Your task to perform on an android device: toggle data saver in the chrome app Image 0: 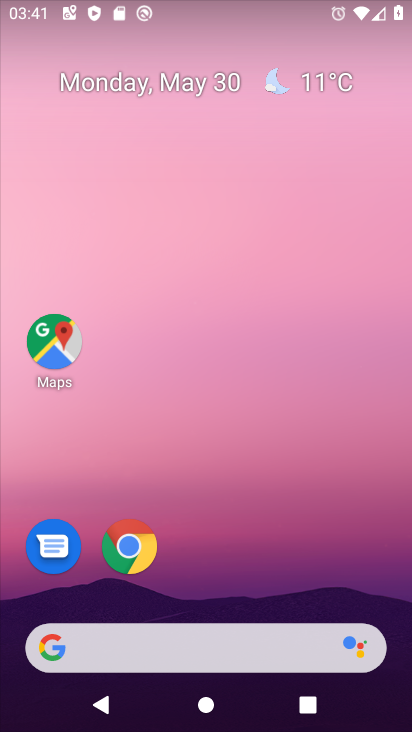
Step 0: press home button
Your task to perform on an android device: toggle data saver in the chrome app Image 1: 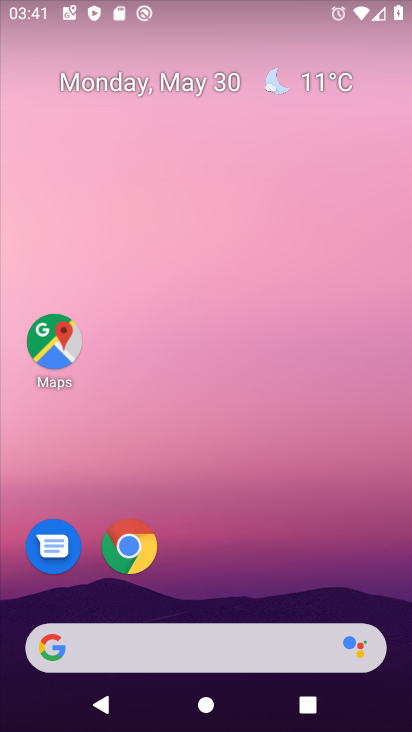
Step 1: click (127, 538)
Your task to perform on an android device: toggle data saver in the chrome app Image 2: 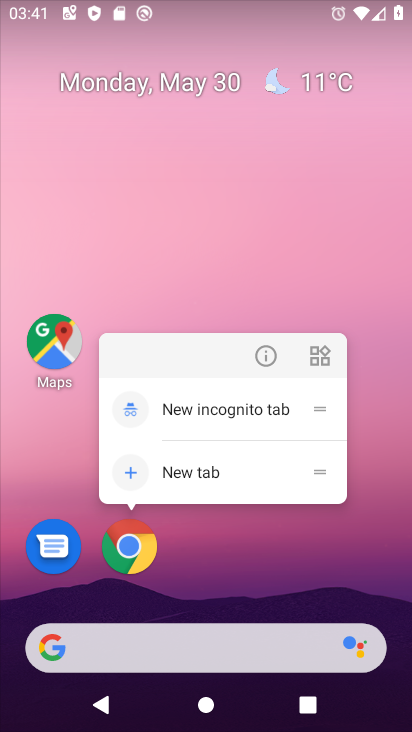
Step 2: click (127, 538)
Your task to perform on an android device: toggle data saver in the chrome app Image 3: 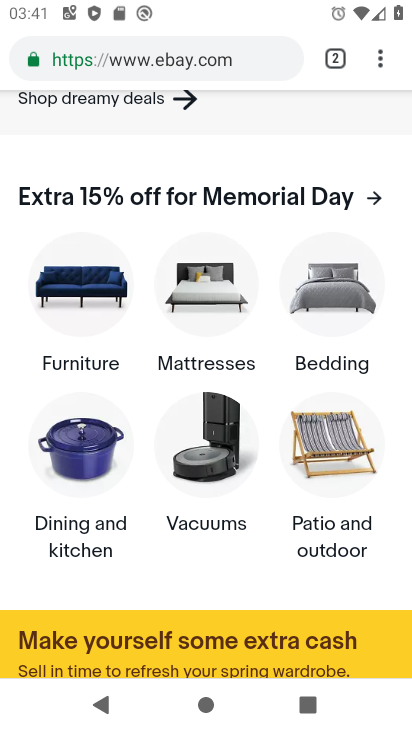
Step 3: click (382, 55)
Your task to perform on an android device: toggle data saver in the chrome app Image 4: 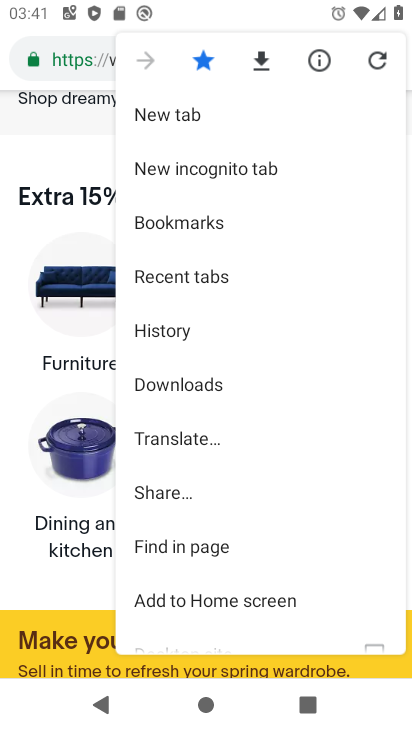
Step 4: drag from (321, 606) to (331, 213)
Your task to perform on an android device: toggle data saver in the chrome app Image 5: 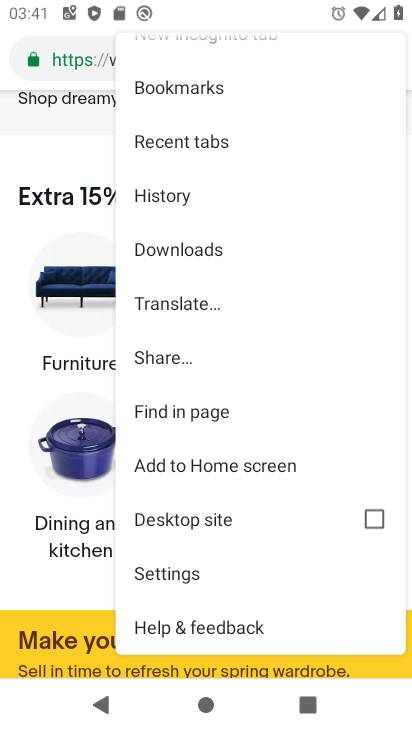
Step 5: click (218, 568)
Your task to perform on an android device: toggle data saver in the chrome app Image 6: 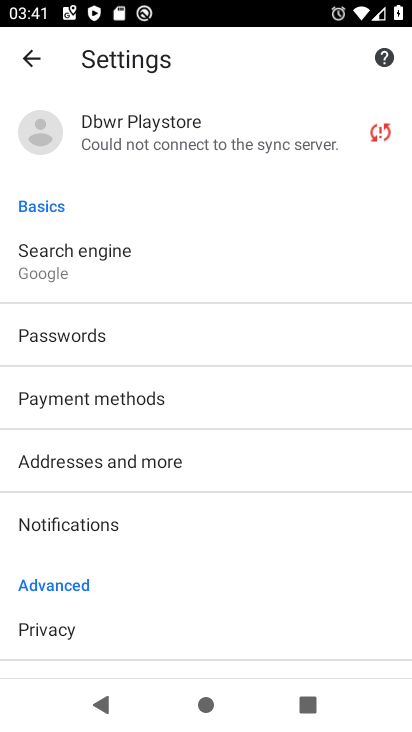
Step 6: drag from (143, 624) to (222, 167)
Your task to perform on an android device: toggle data saver in the chrome app Image 7: 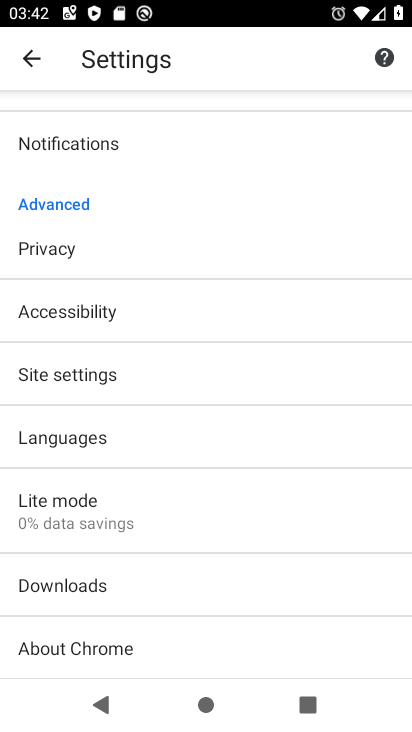
Step 7: click (141, 510)
Your task to perform on an android device: toggle data saver in the chrome app Image 8: 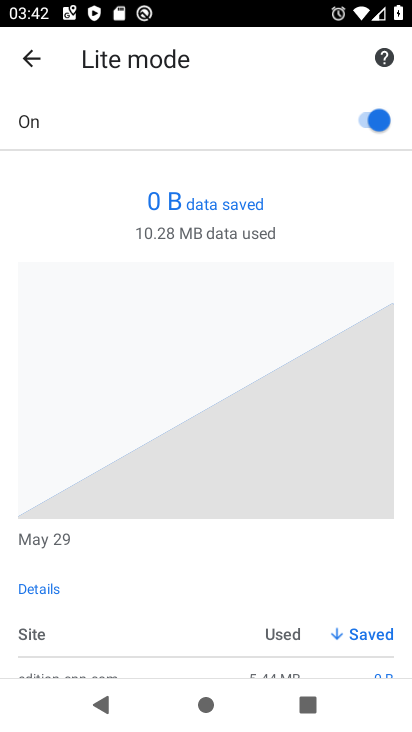
Step 8: task complete